Your task to perform on an android device: turn on javascript in the chrome app Image 0: 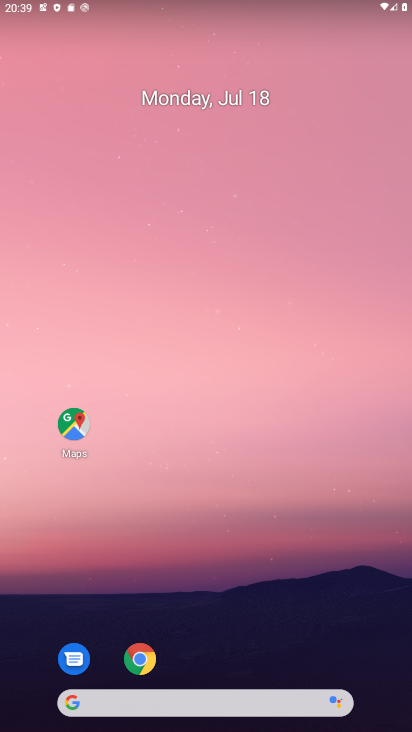
Step 0: press back button
Your task to perform on an android device: turn on javascript in the chrome app Image 1: 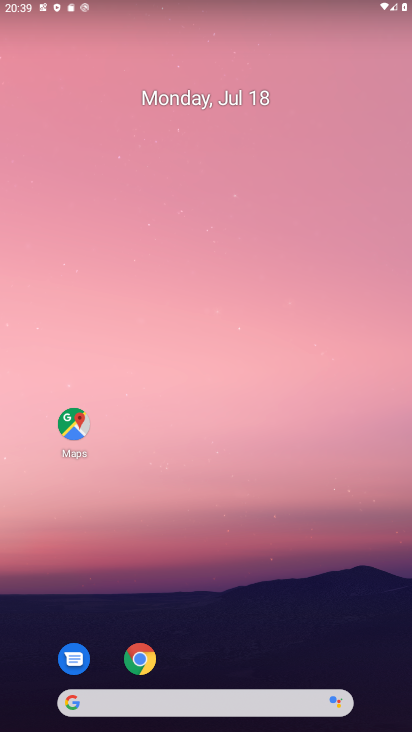
Step 1: drag from (196, 697) to (160, 249)
Your task to perform on an android device: turn on javascript in the chrome app Image 2: 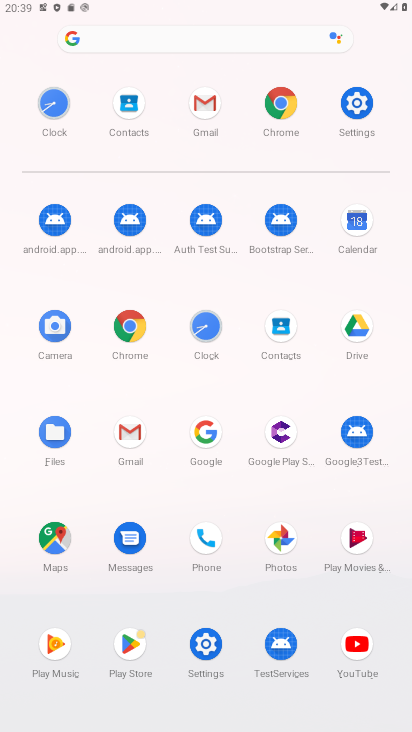
Step 2: click (286, 112)
Your task to perform on an android device: turn on javascript in the chrome app Image 3: 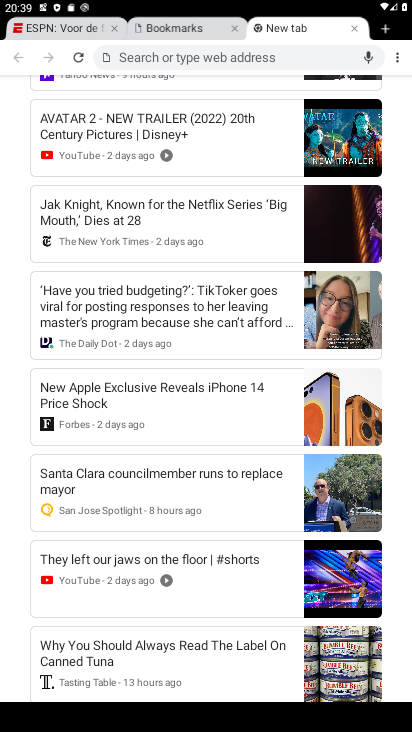
Step 3: drag from (396, 58) to (276, 258)
Your task to perform on an android device: turn on javascript in the chrome app Image 4: 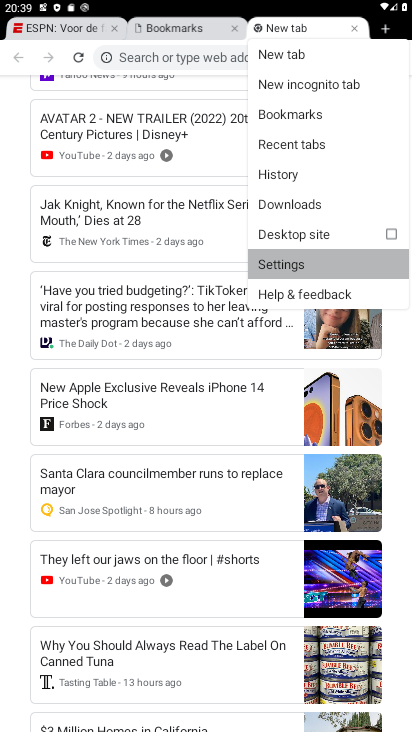
Step 4: click (276, 258)
Your task to perform on an android device: turn on javascript in the chrome app Image 5: 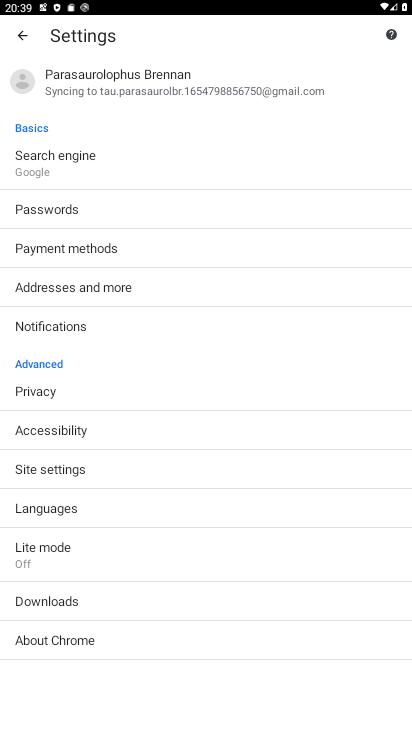
Step 5: click (41, 464)
Your task to perform on an android device: turn on javascript in the chrome app Image 6: 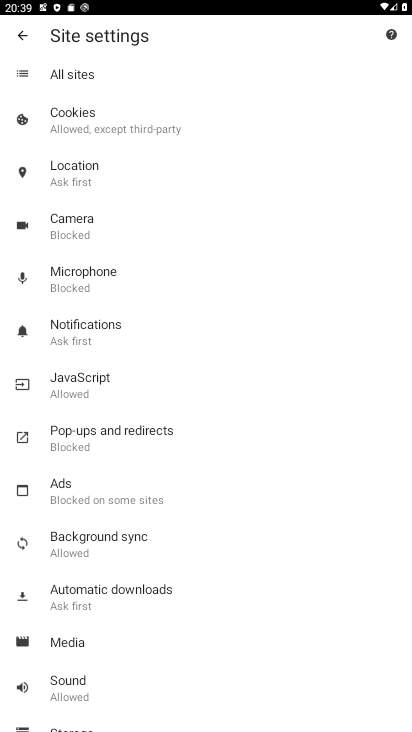
Step 6: click (79, 383)
Your task to perform on an android device: turn on javascript in the chrome app Image 7: 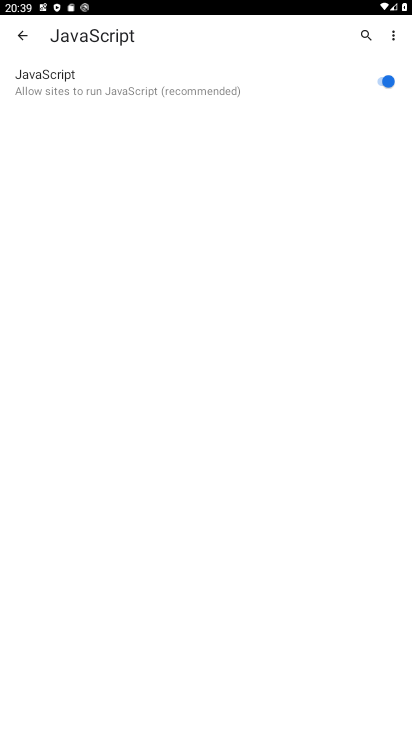
Step 7: task complete